Your task to perform on an android device: turn on improve location accuracy Image 0: 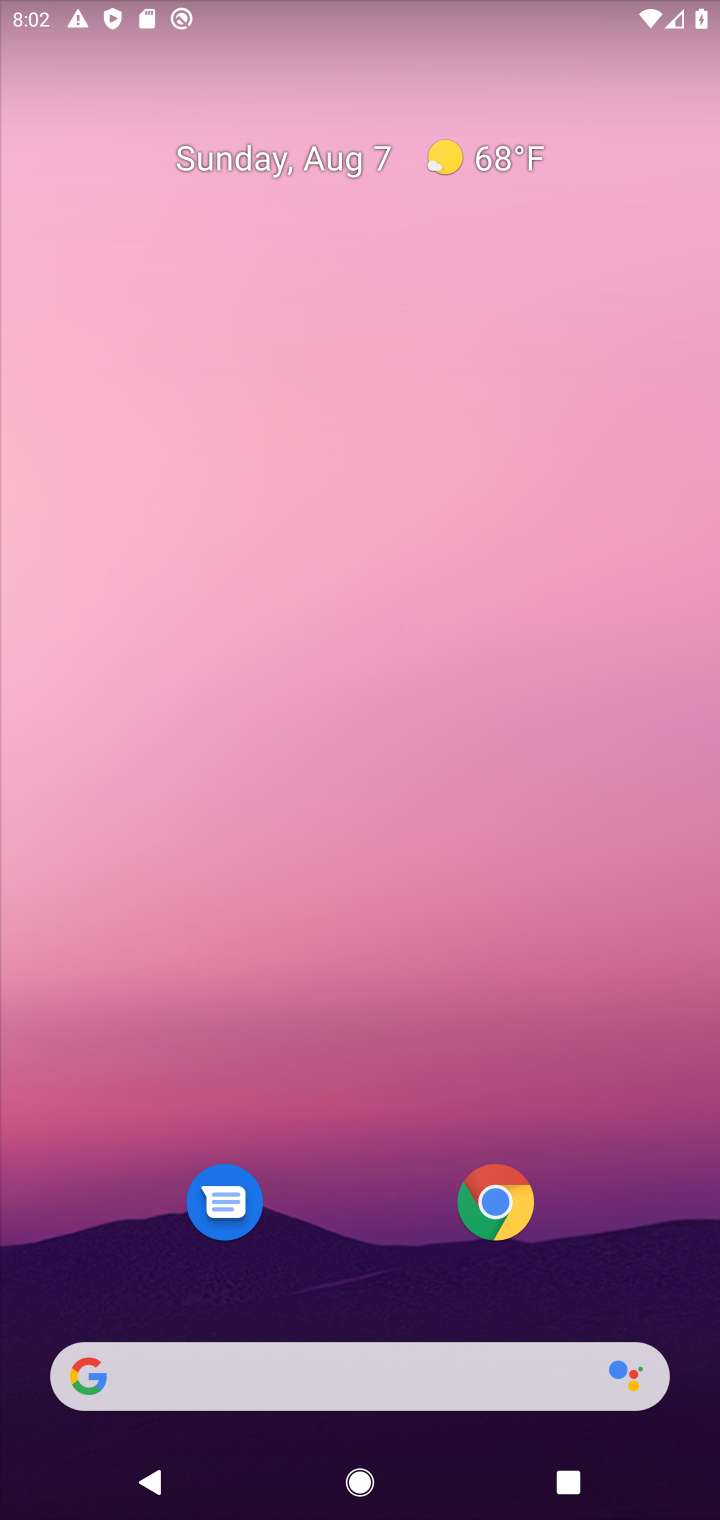
Step 0: drag from (308, 931) to (402, 26)
Your task to perform on an android device: turn on improve location accuracy Image 1: 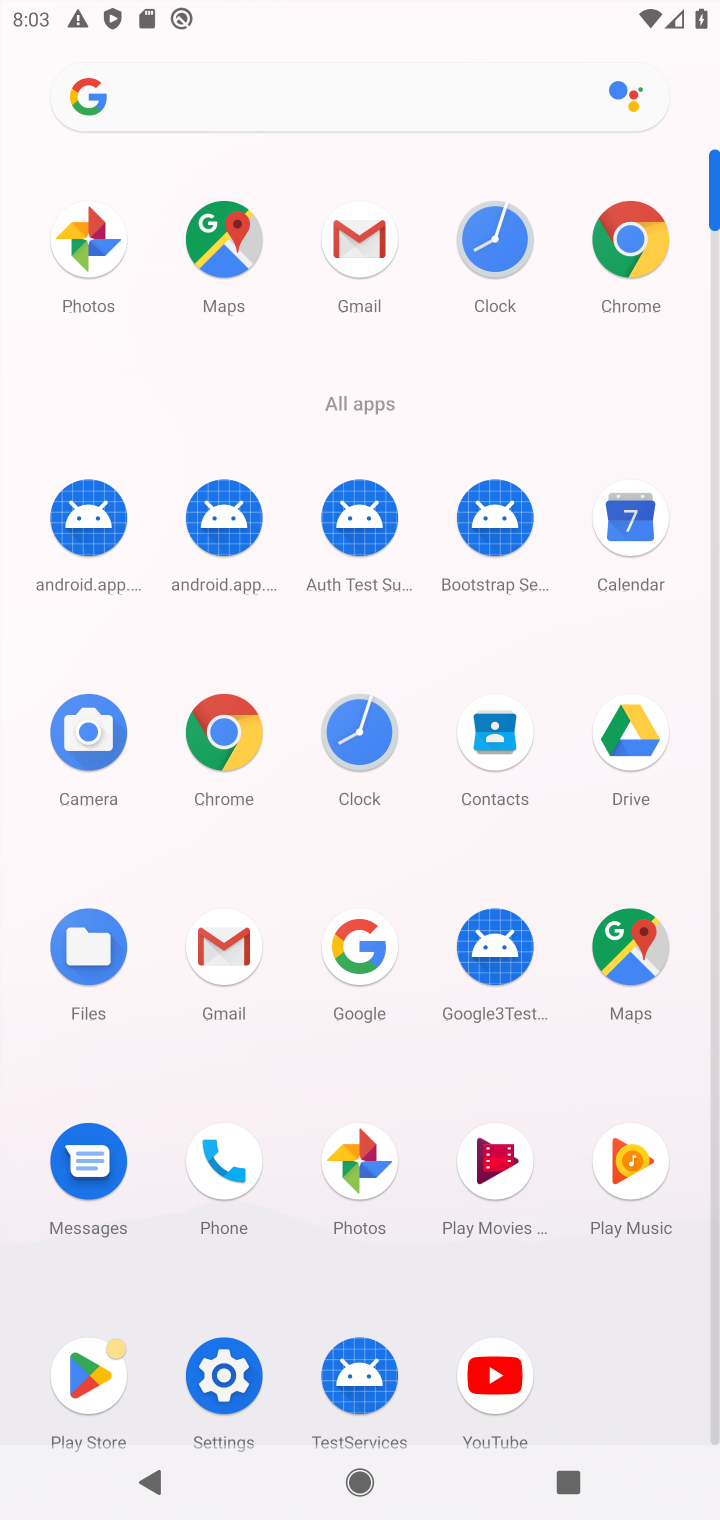
Step 1: click (234, 1359)
Your task to perform on an android device: turn on improve location accuracy Image 2: 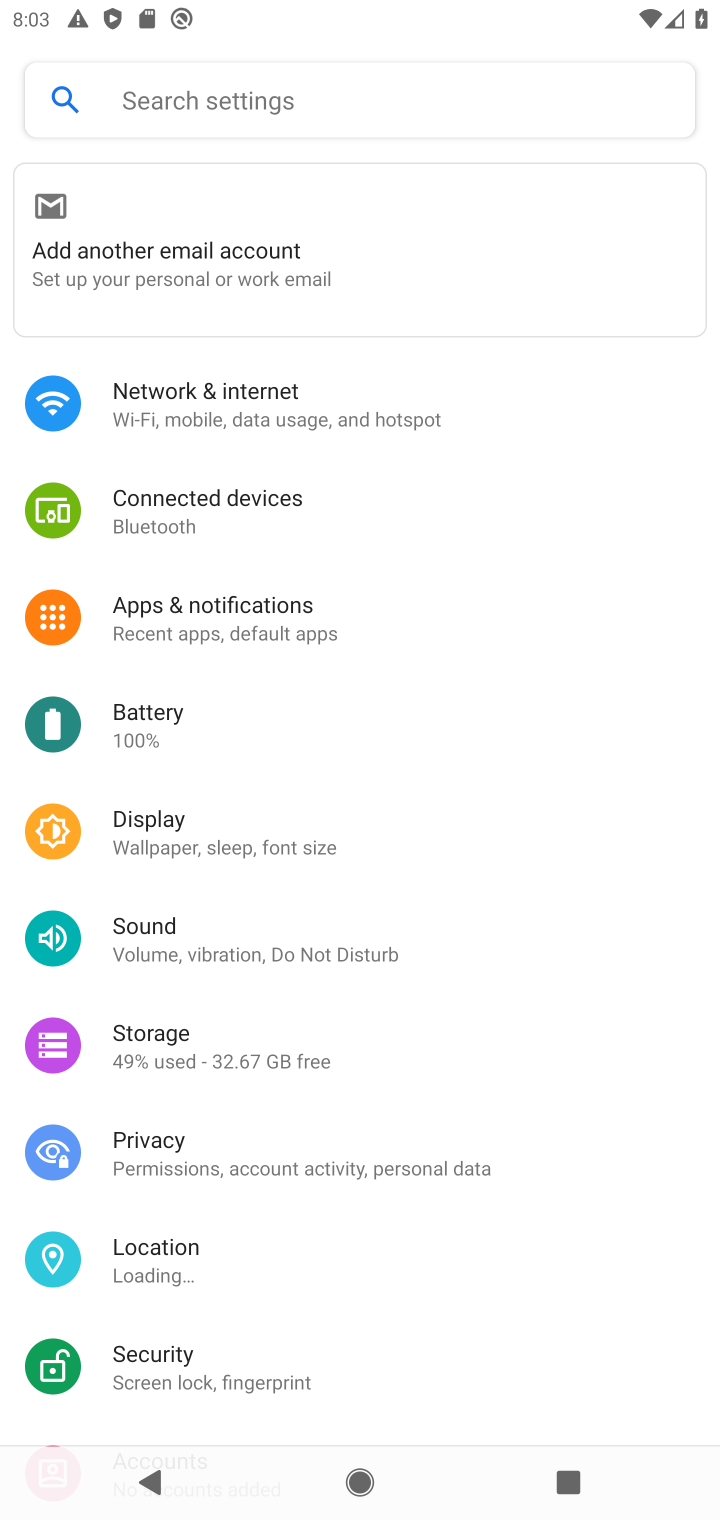
Step 2: click (194, 1255)
Your task to perform on an android device: turn on improve location accuracy Image 3: 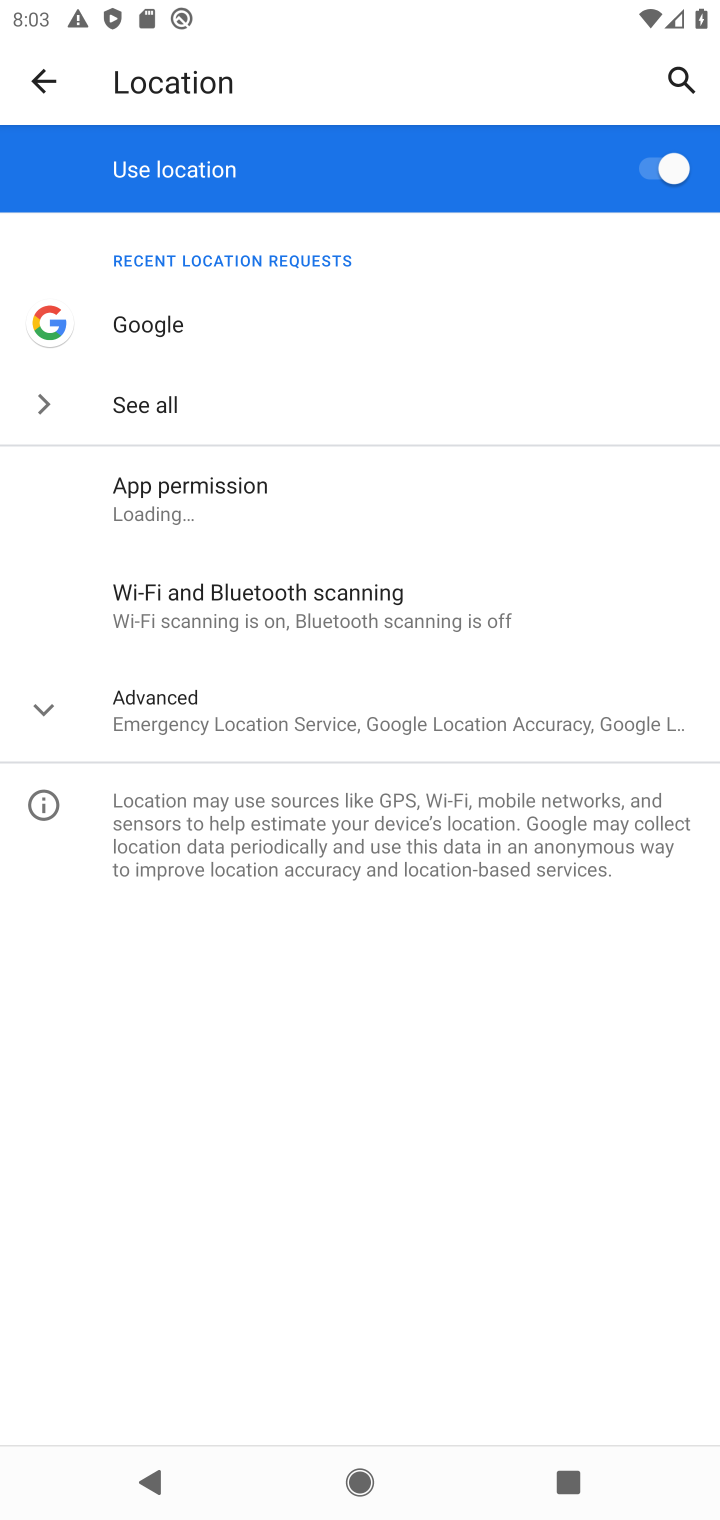
Step 3: click (307, 716)
Your task to perform on an android device: turn on improve location accuracy Image 4: 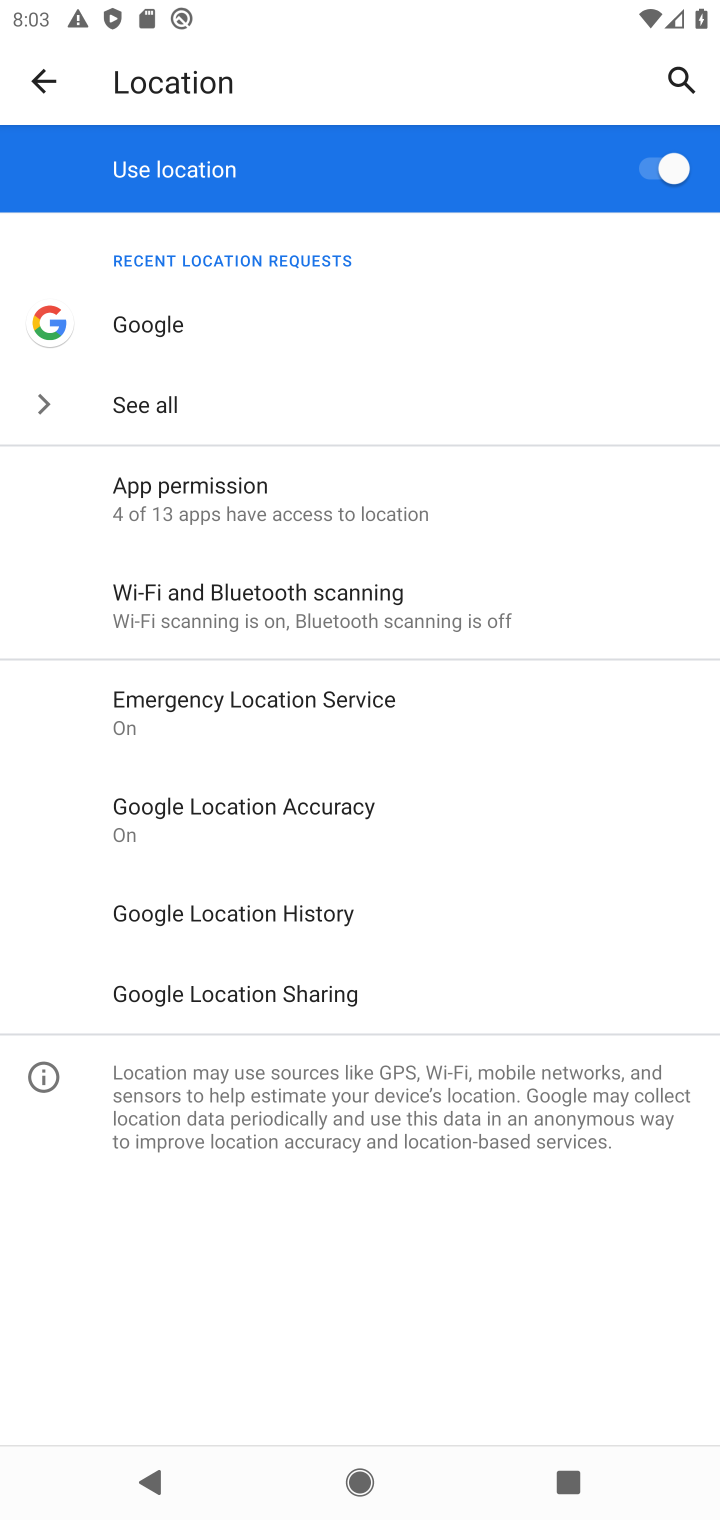
Step 4: click (300, 799)
Your task to perform on an android device: turn on improve location accuracy Image 5: 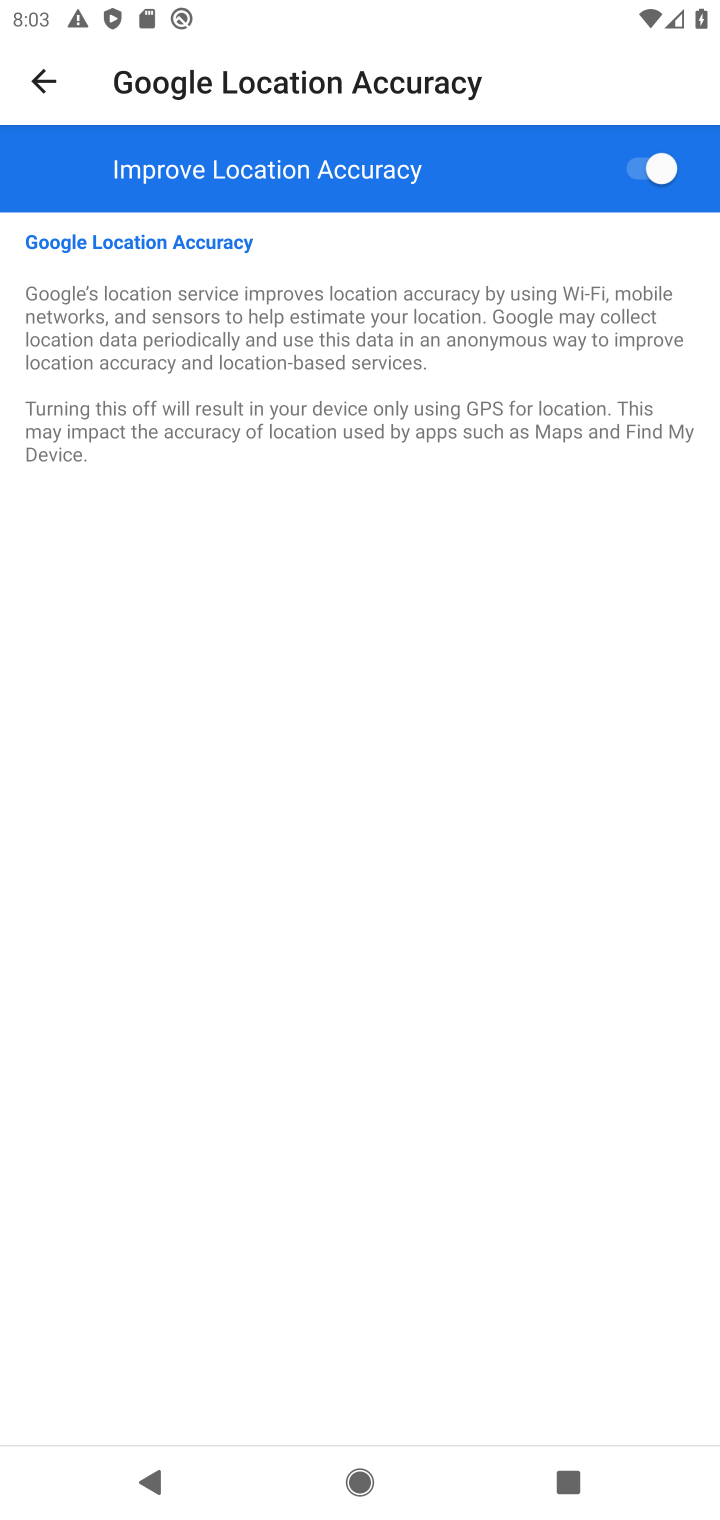
Step 5: task complete